Your task to perform on an android device: What's the weather going to be tomorrow? Image 0: 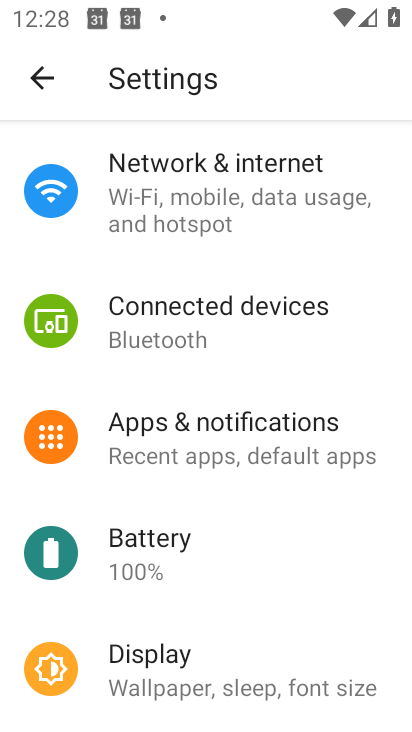
Step 0: press home button
Your task to perform on an android device: What's the weather going to be tomorrow? Image 1: 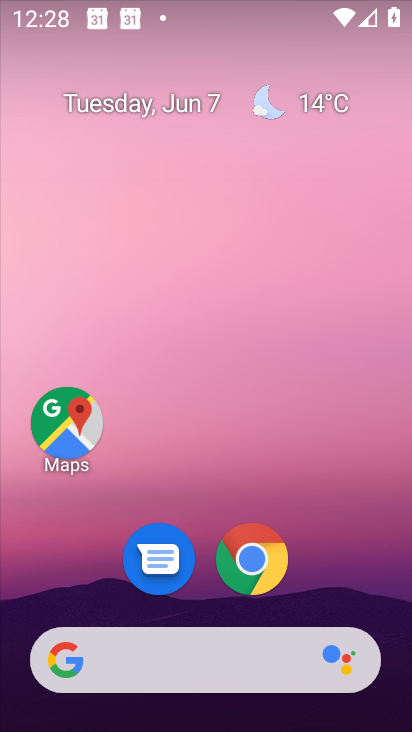
Step 1: click (283, 111)
Your task to perform on an android device: What's the weather going to be tomorrow? Image 2: 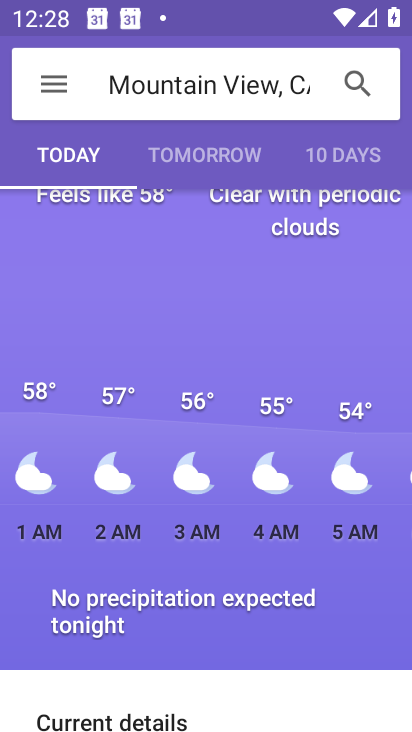
Step 2: click (206, 167)
Your task to perform on an android device: What's the weather going to be tomorrow? Image 3: 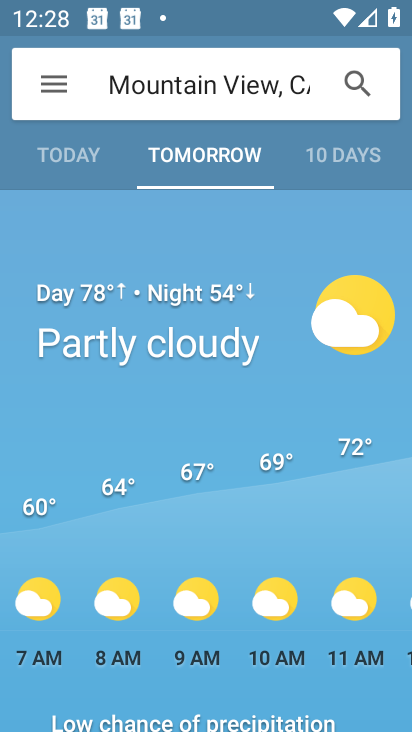
Step 3: task complete